Your task to perform on an android device: Open settings on Google Maps Image 0: 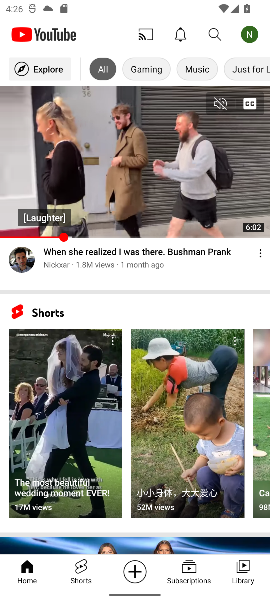
Step 0: press home button
Your task to perform on an android device: Open settings on Google Maps Image 1: 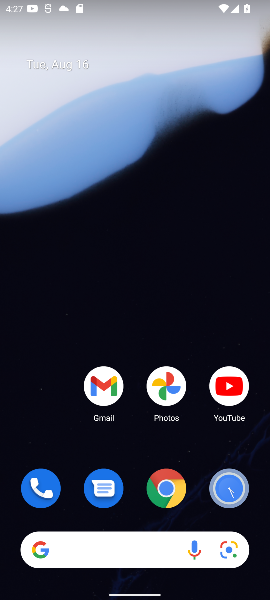
Step 1: task complete